Your task to perform on an android device: What's the weather going to be tomorrow? Image 0: 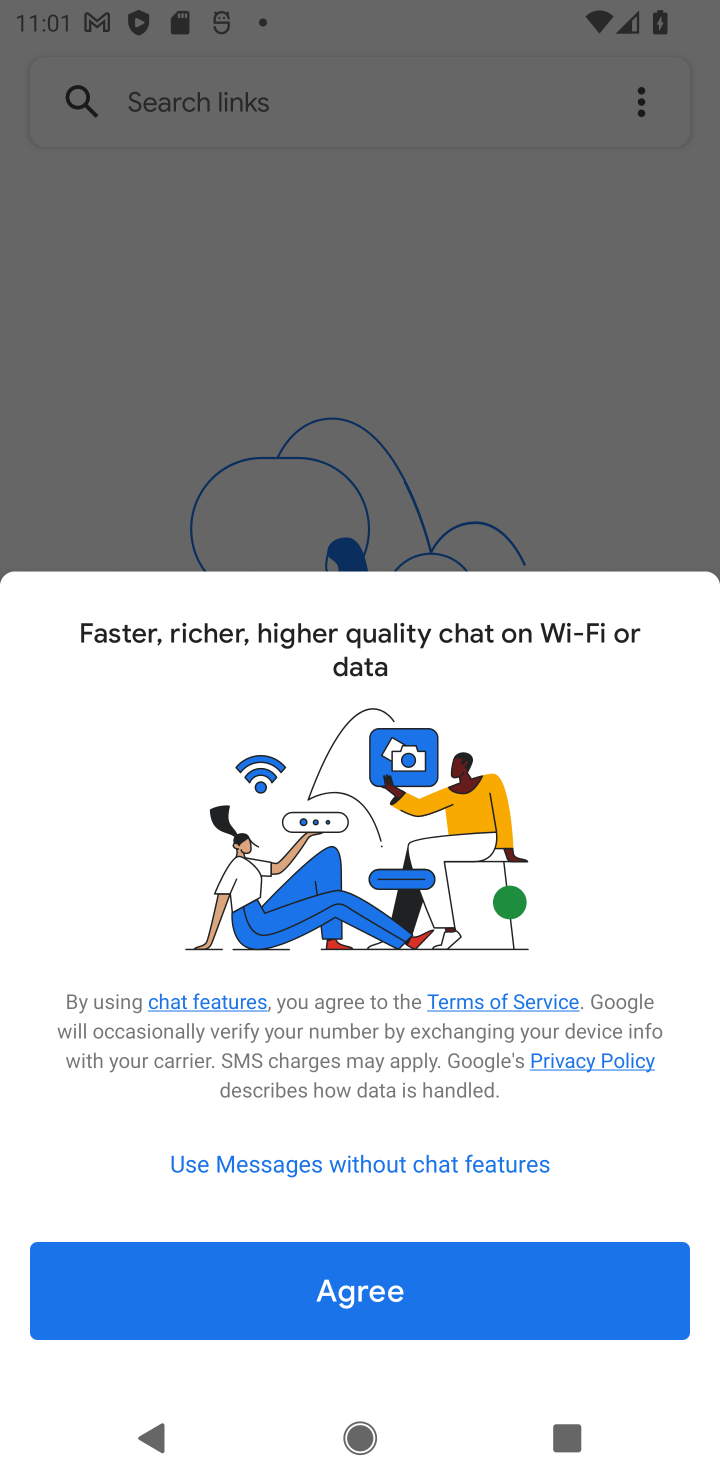
Step 0: press home button
Your task to perform on an android device: What's the weather going to be tomorrow? Image 1: 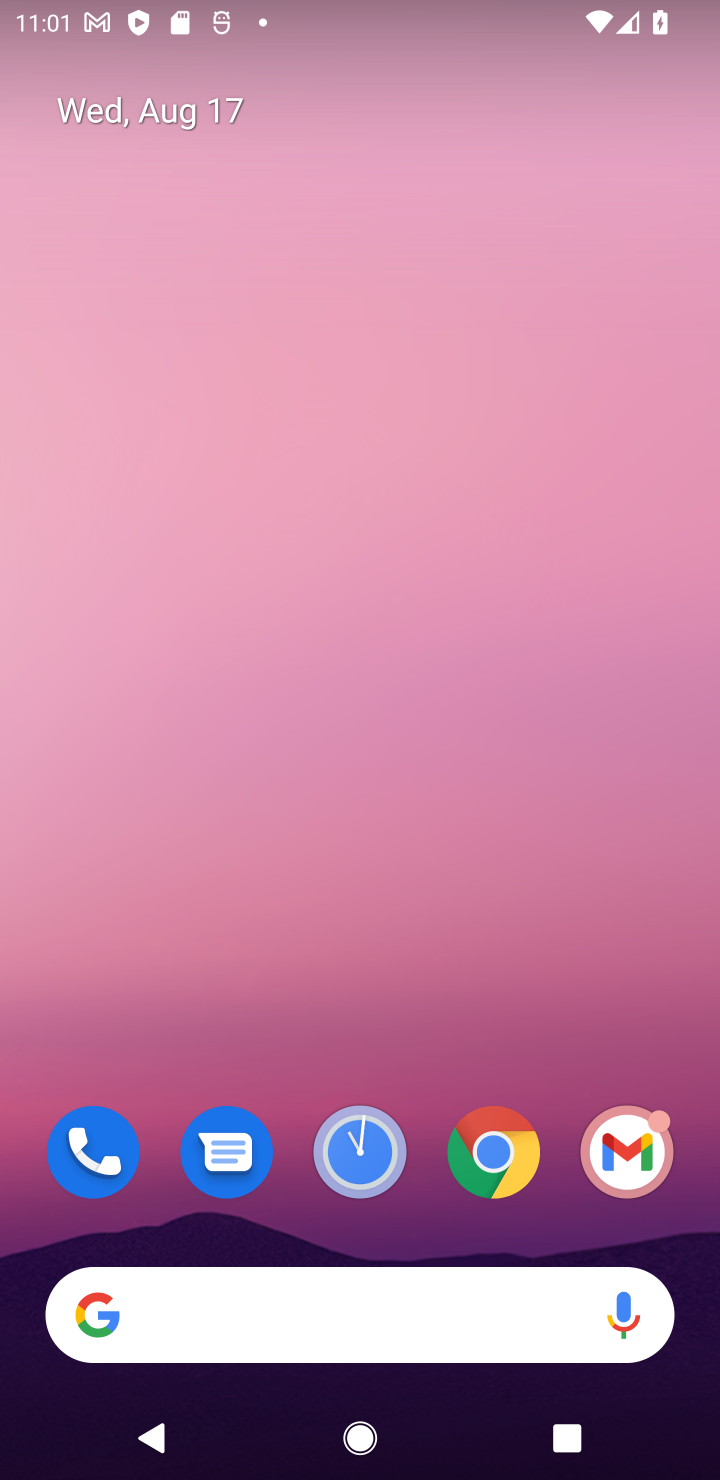
Step 1: drag from (579, 1183) to (294, 20)
Your task to perform on an android device: What's the weather going to be tomorrow? Image 2: 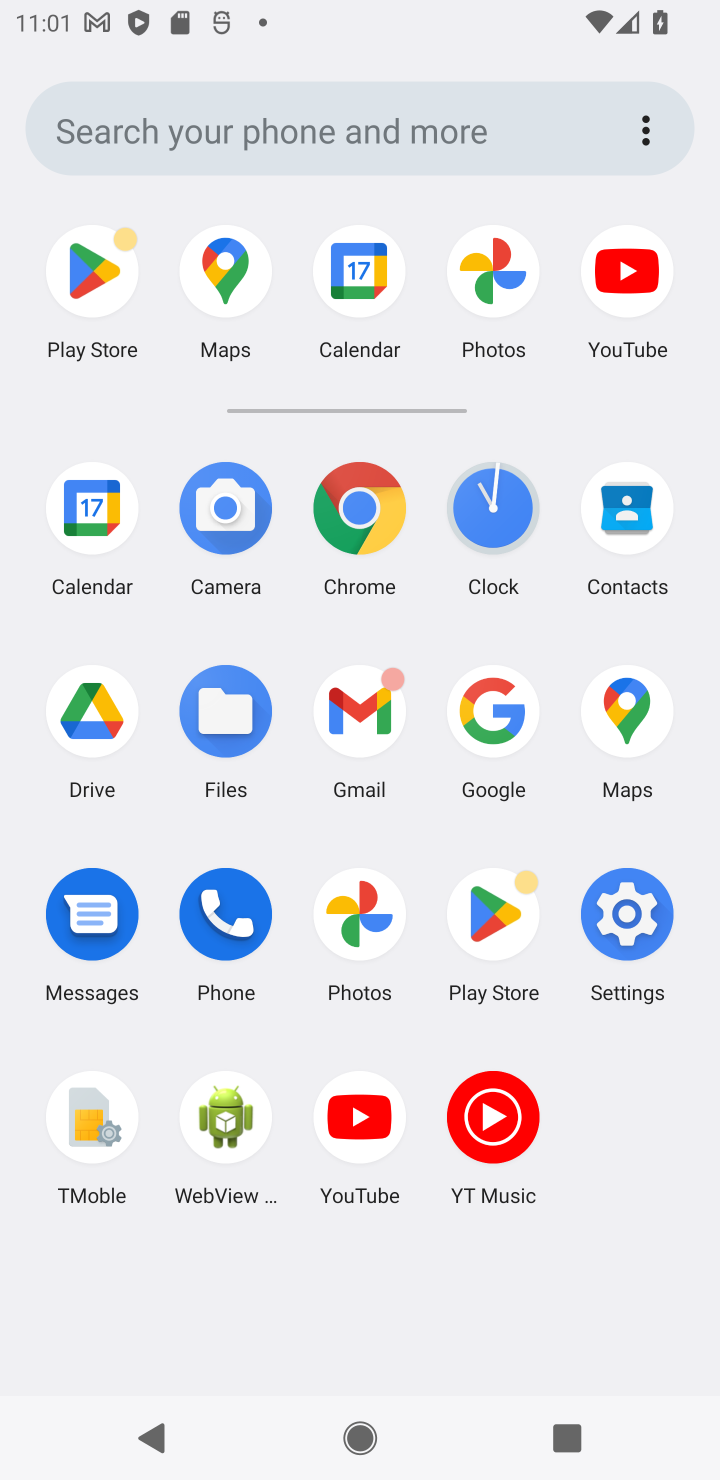
Step 2: click (474, 735)
Your task to perform on an android device: What's the weather going to be tomorrow? Image 3: 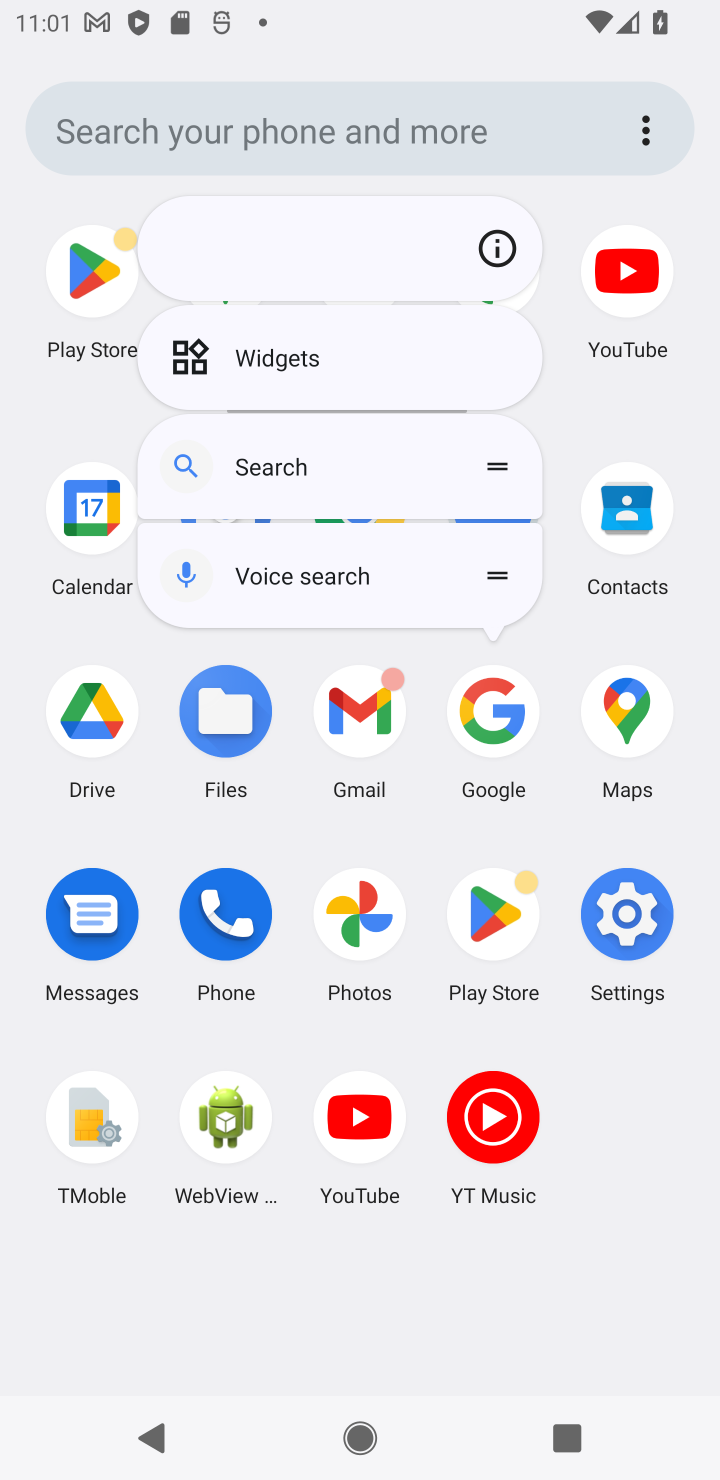
Step 3: click (488, 723)
Your task to perform on an android device: What's the weather going to be tomorrow? Image 4: 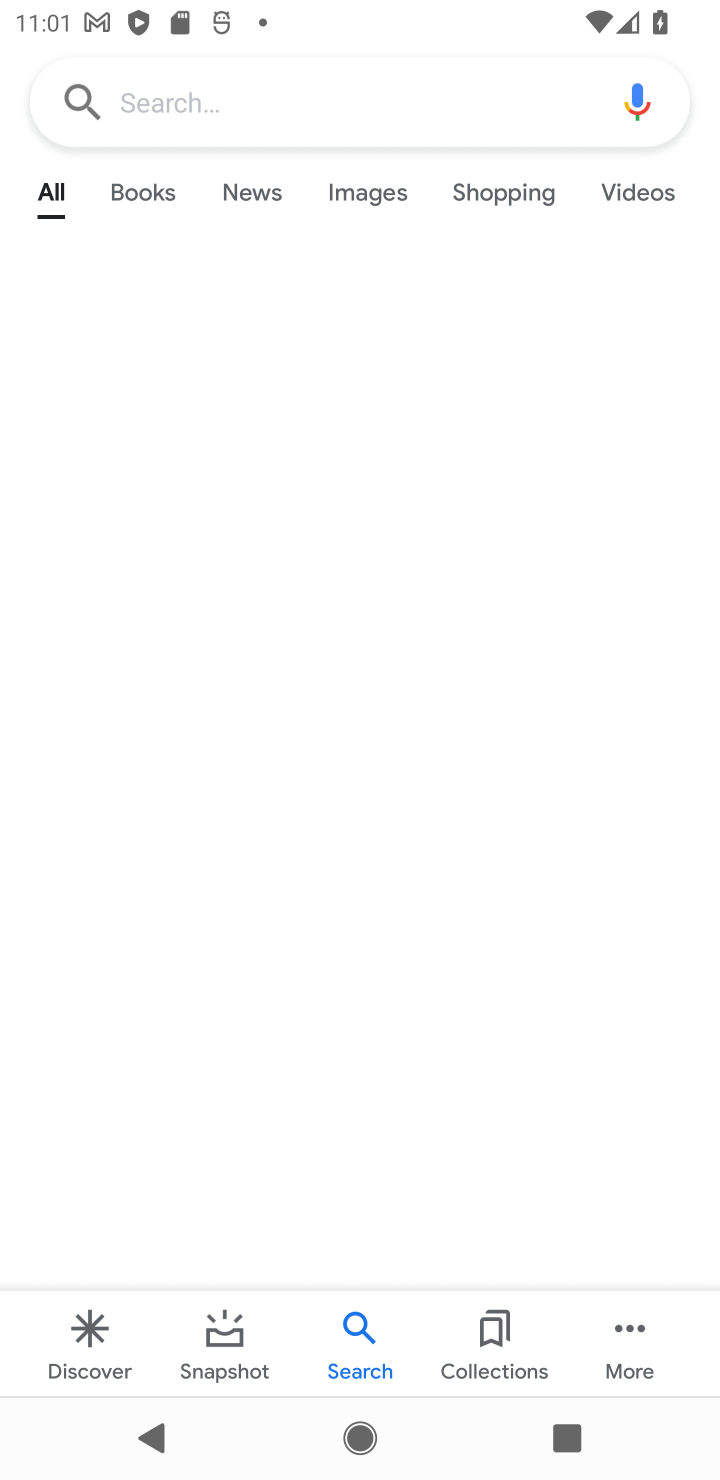
Step 4: click (268, 123)
Your task to perform on an android device: What's the weather going to be tomorrow? Image 5: 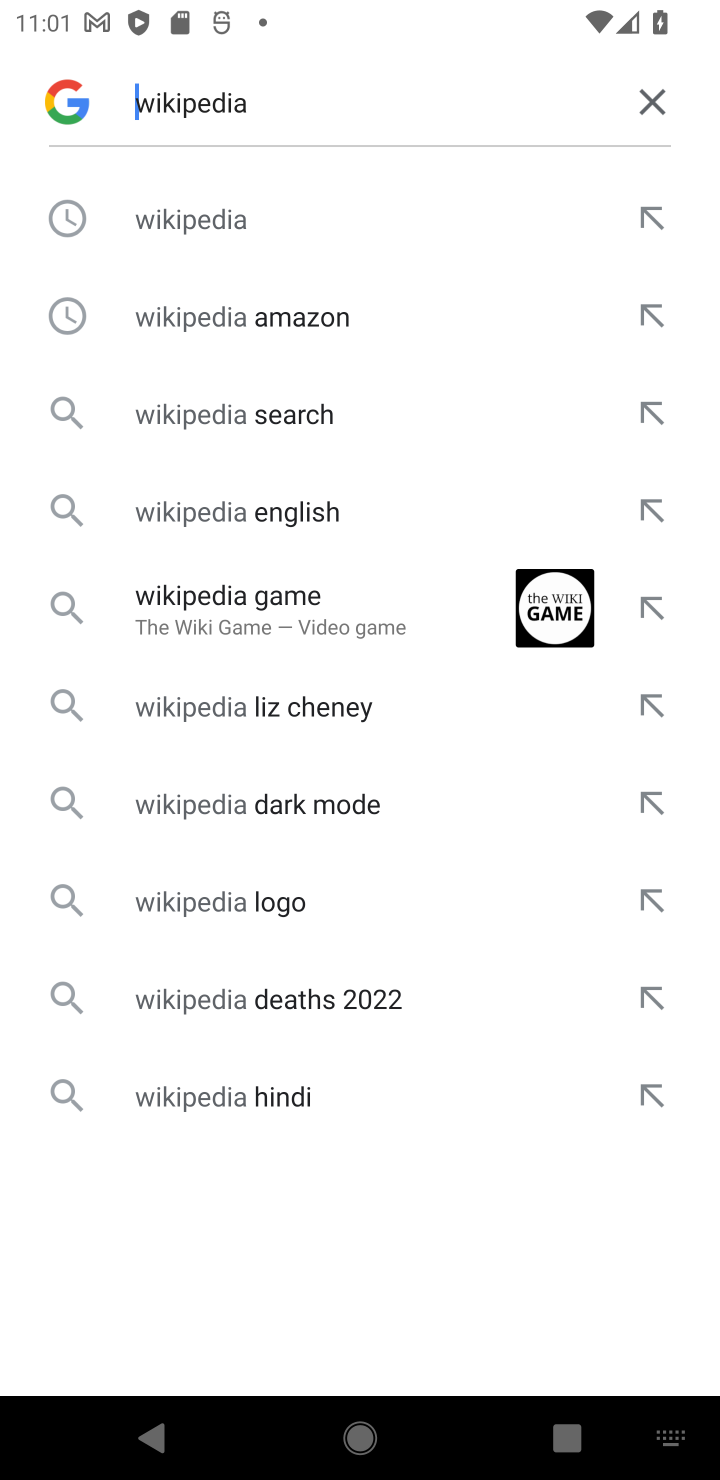
Step 5: click (646, 111)
Your task to perform on an android device: What's the weather going to be tomorrow? Image 6: 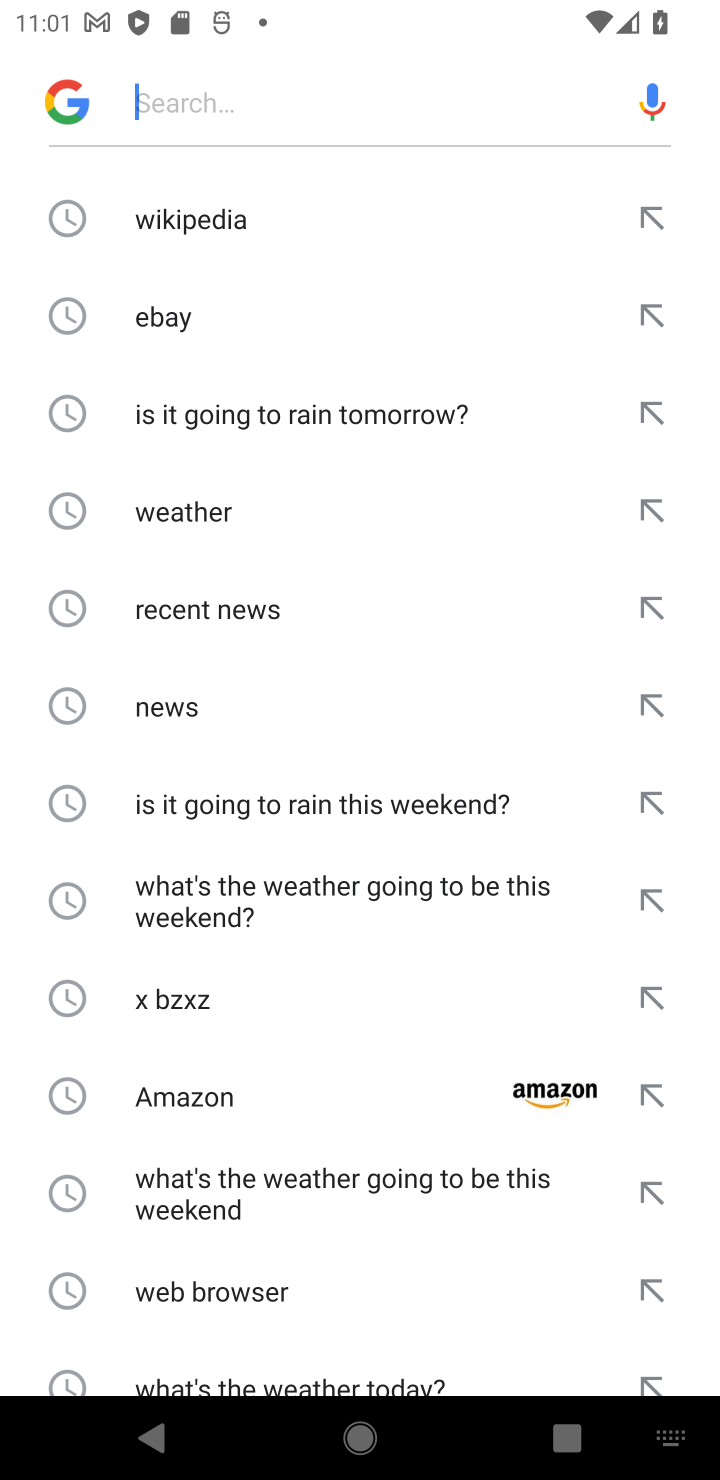
Step 6: type "What's the weather going to be tomorrow?"
Your task to perform on an android device: What's the weather going to be tomorrow? Image 7: 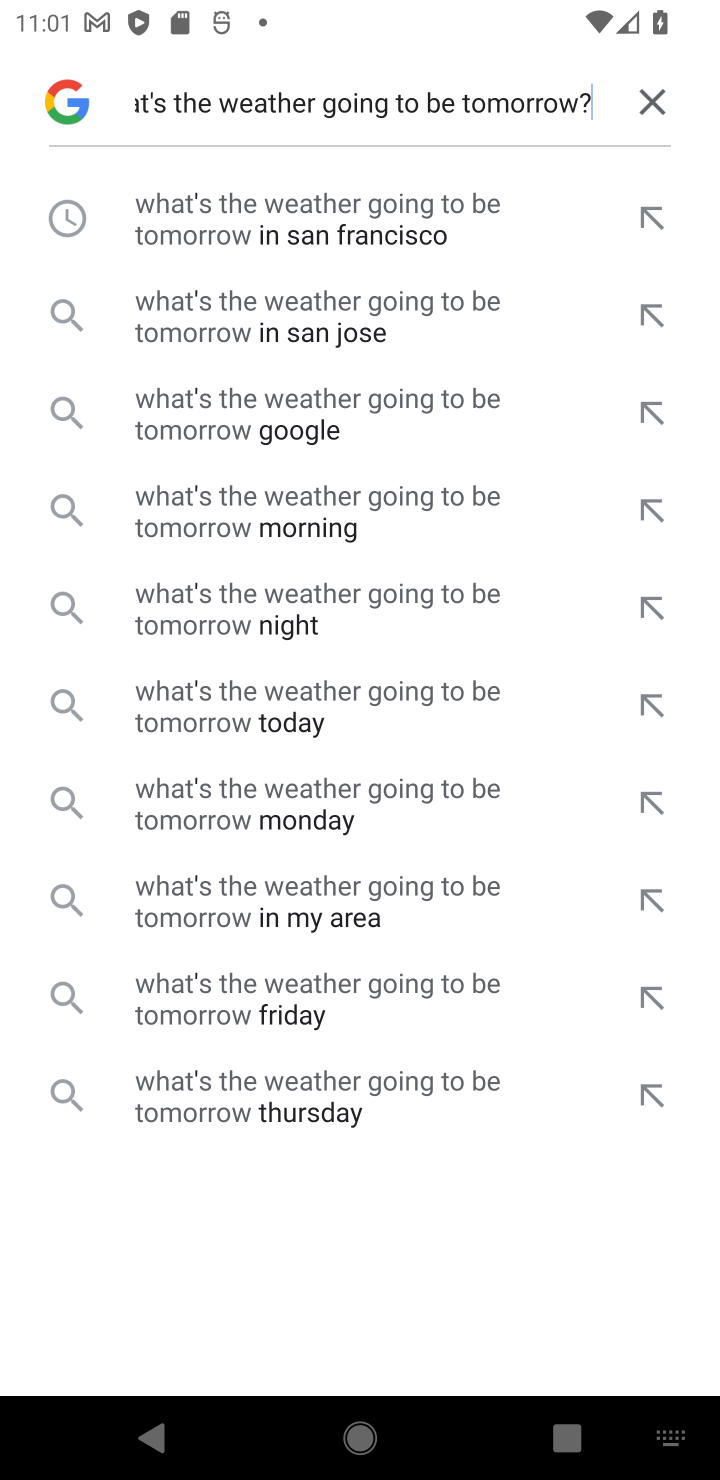
Step 7: task complete